Your task to perform on an android device: Set an alarm for 4pm Image 0: 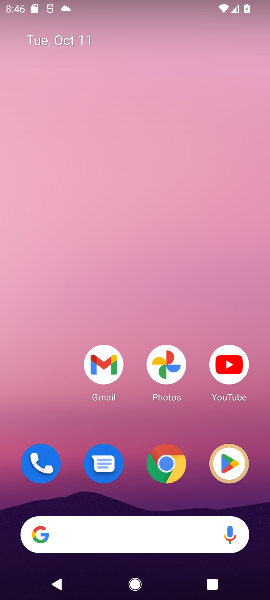
Step 0: drag from (184, 507) to (186, 217)
Your task to perform on an android device: Set an alarm for 4pm Image 1: 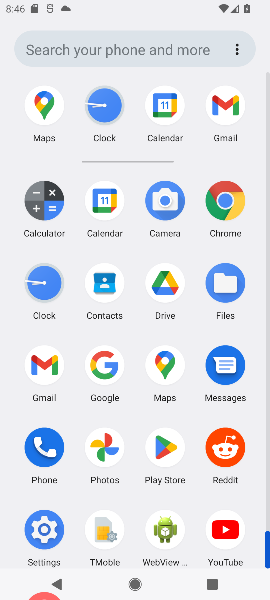
Step 1: click (39, 276)
Your task to perform on an android device: Set an alarm for 4pm Image 2: 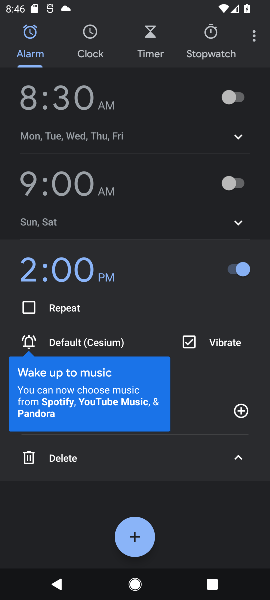
Step 2: click (130, 538)
Your task to perform on an android device: Set an alarm for 4pm Image 3: 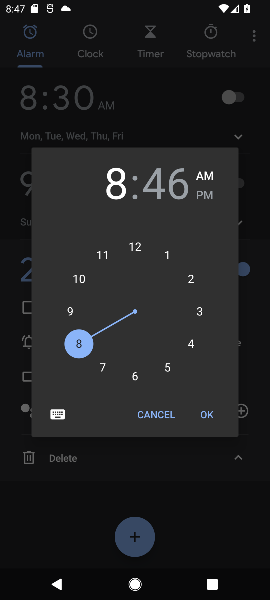
Step 3: click (181, 348)
Your task to perform on an android device: Set an alarm for 4pm Image 4: 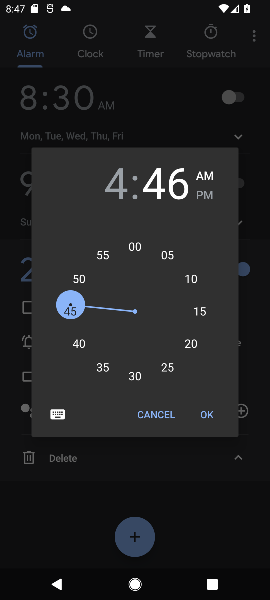
Step 4: click (127, 254)
Your task to perform on an android device: Set an alarm for 4pm Image 5: 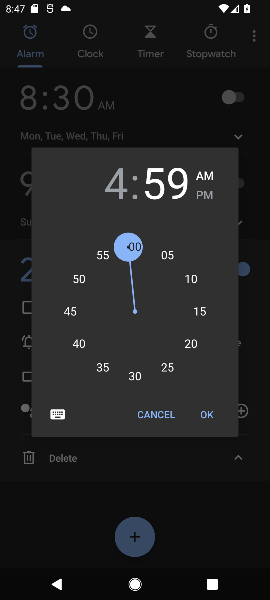
Step 5: click (209, 203)
Your task to perform on an android device: Set an alarm for 4pm Image 6: 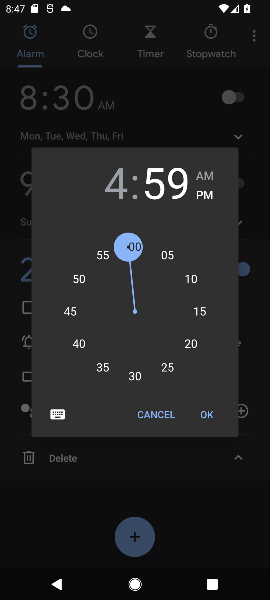
Step 6: click (132, 249)
Your task to perform on an android device: Set an alarm for 4pm Image 7: 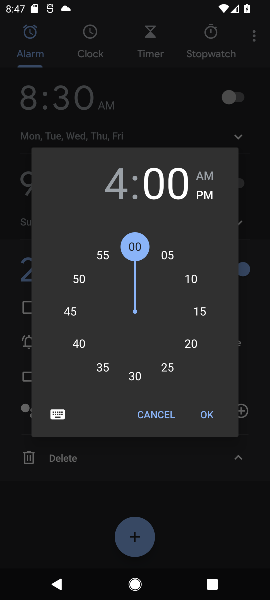
Step 7: click (140, 250)
Your task to perform on an android device: Set an alarm for 4pm Image 8: 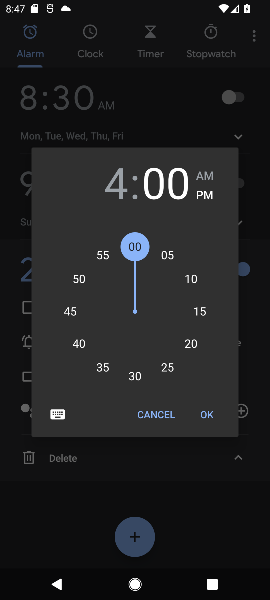
Step 8: click (201, 417)
Your task to perform on an android device: Set an alarm for 4pm Image 9: 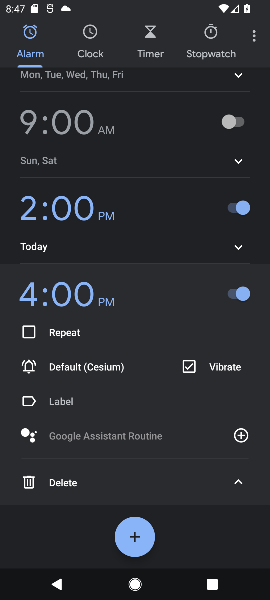
Step 9: click (226, 482)
Your task to perform on an android device: Set an alarm for 4pm Image 10: 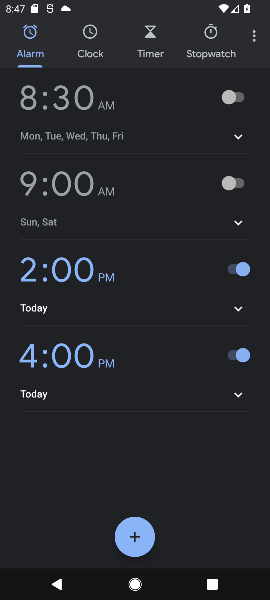
Step 10: task complete